Your task to perform on an android device: What's the weather today? Image 0: 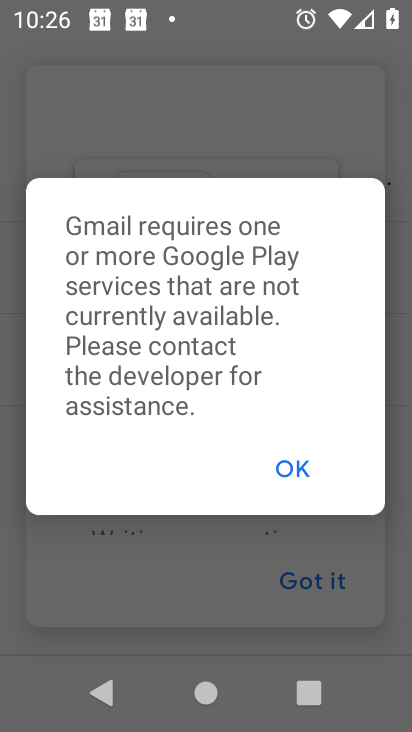
Step 0: press home button
Your task to perform on an android device: What's the weather today? Image 1: 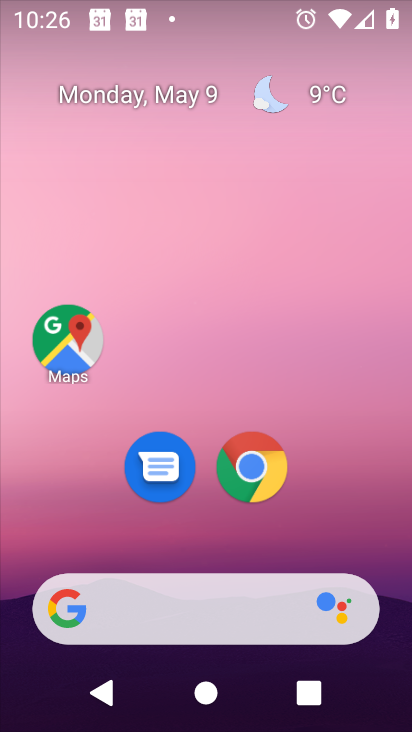
Step 1: click (327, 94)
Your task to perform on an android device: What's the weather today? Image 2: 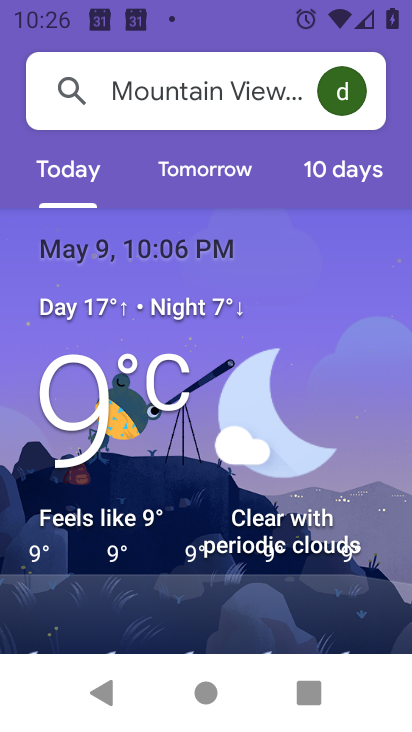
Step 2: task complete